Your task to perform on an android device: install app "Instagram" Image 0: 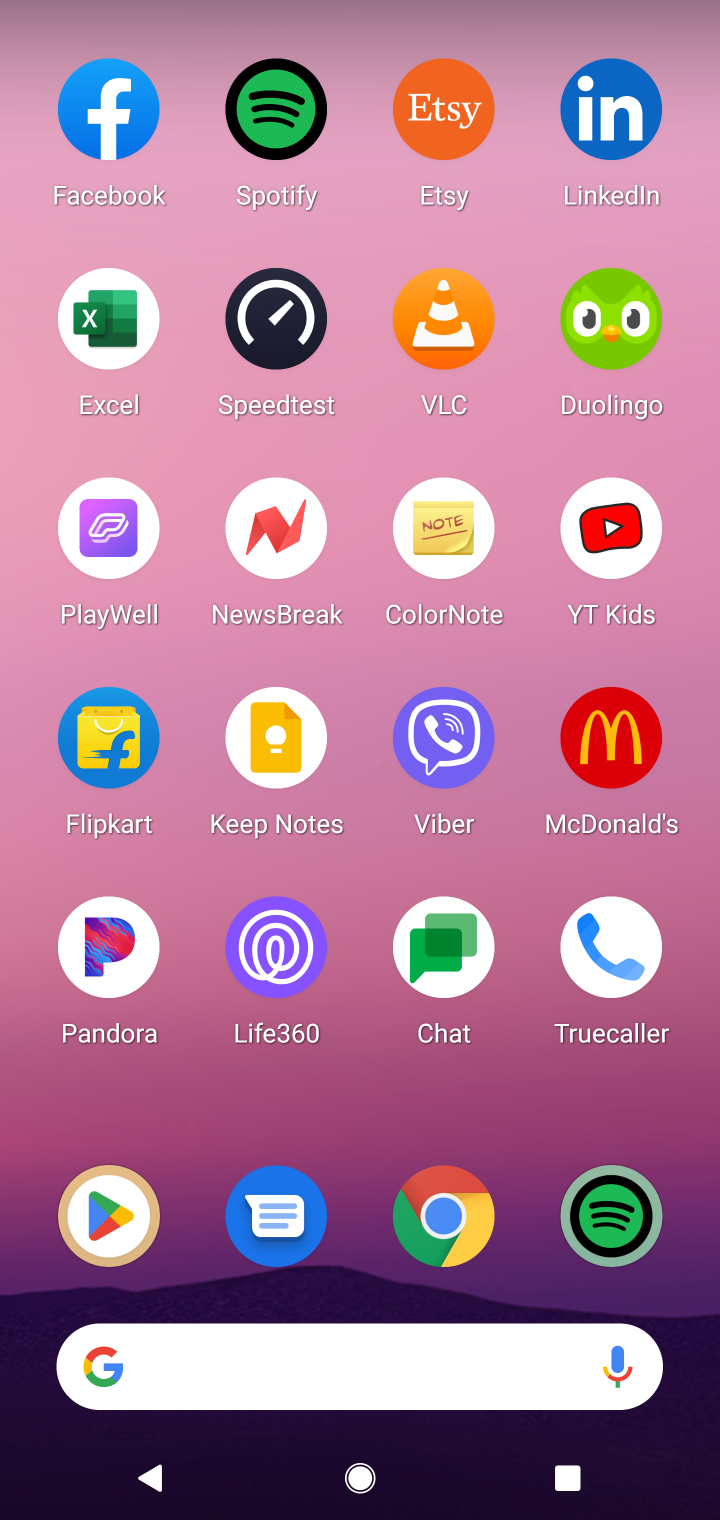
Step 0: click (137, 1211)
Your task to perform on an android device: install app "Instagram" Image 1: 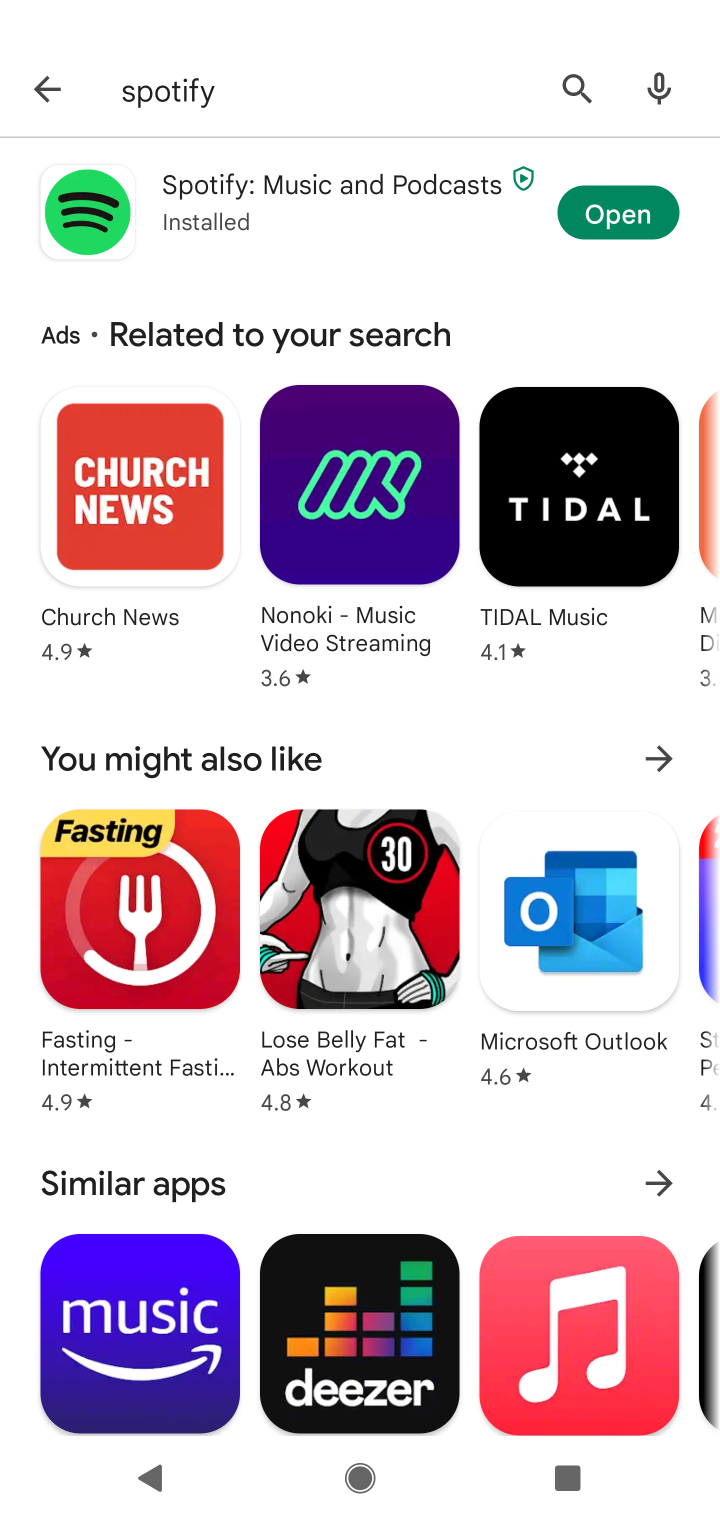
Step 1: click (600, 88)
Your task to perform on an android device: install app "Instagram" Image 2: 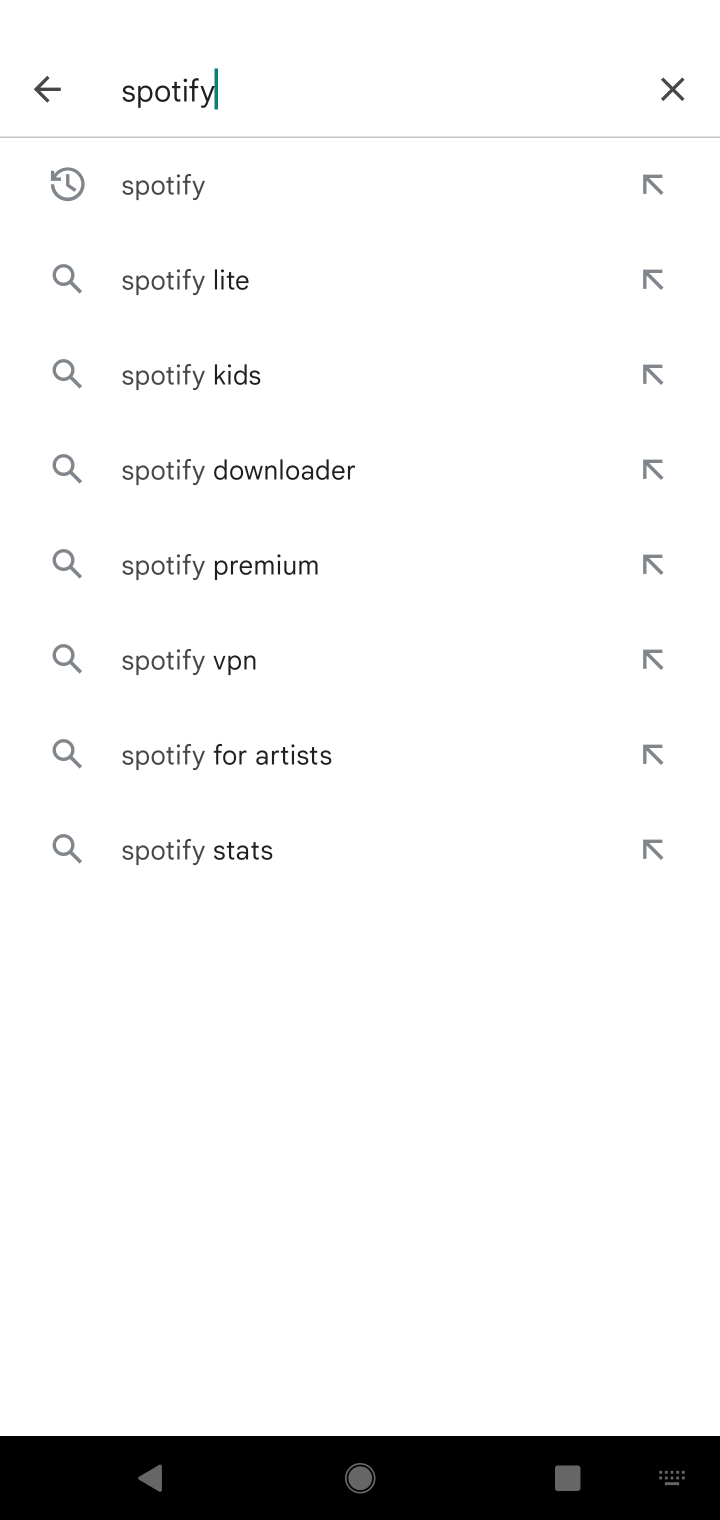
Step 2: click (660, 89)
Your task to perform on an android device: install app "Instagram" Image 3: 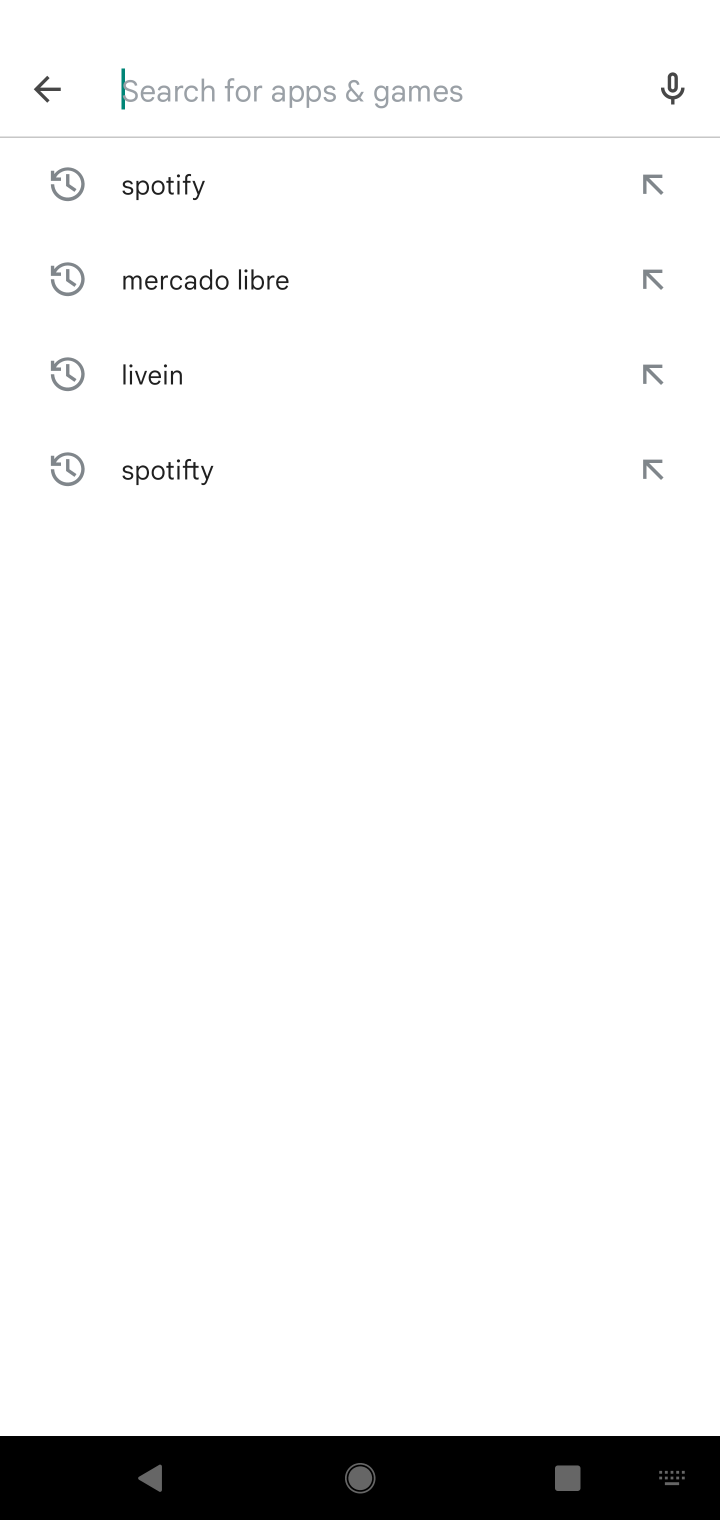
Step 3: type "instagram"
Your task to perform on an android device: install app "Instagram" Image 4: 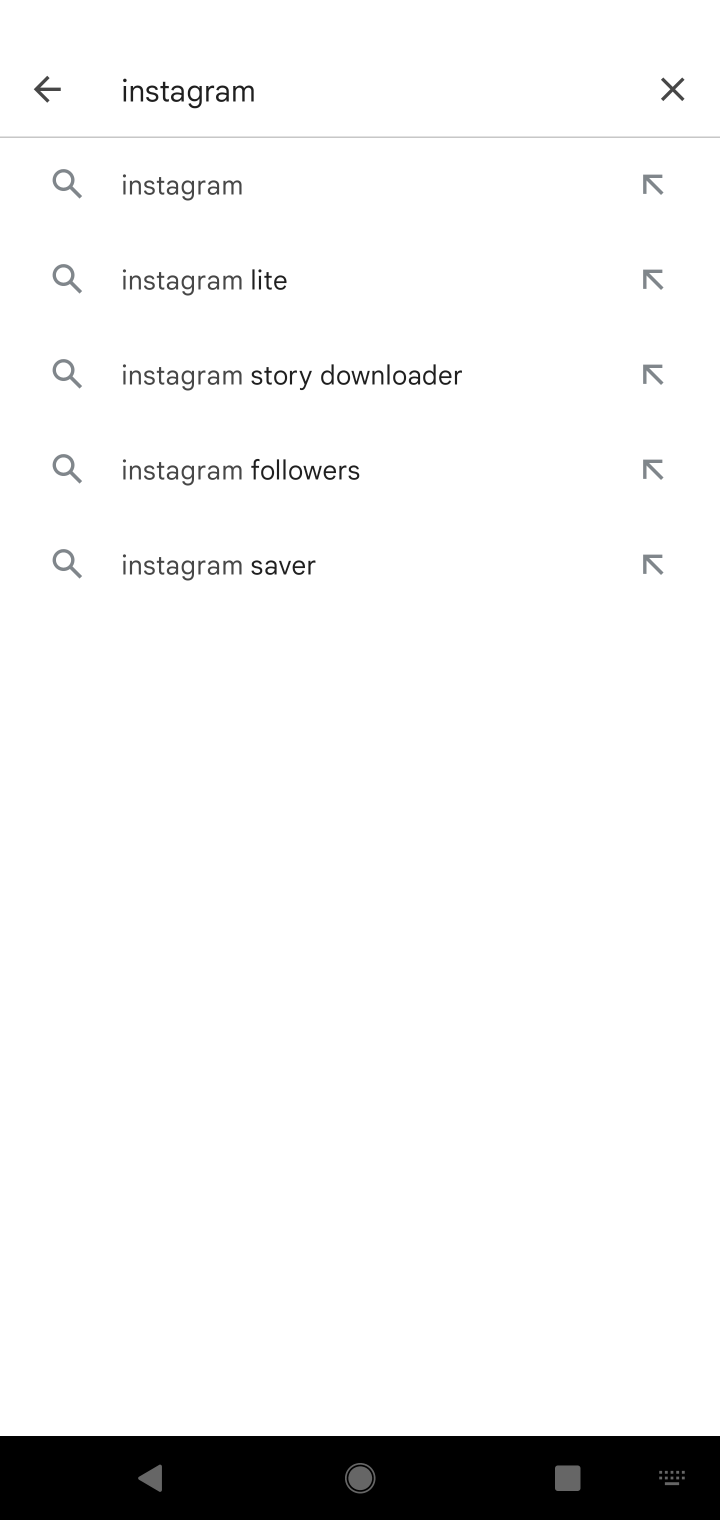
Step 4: click (357, 194)
Your task to perform on an android device: install app "Instagram" Image 5: 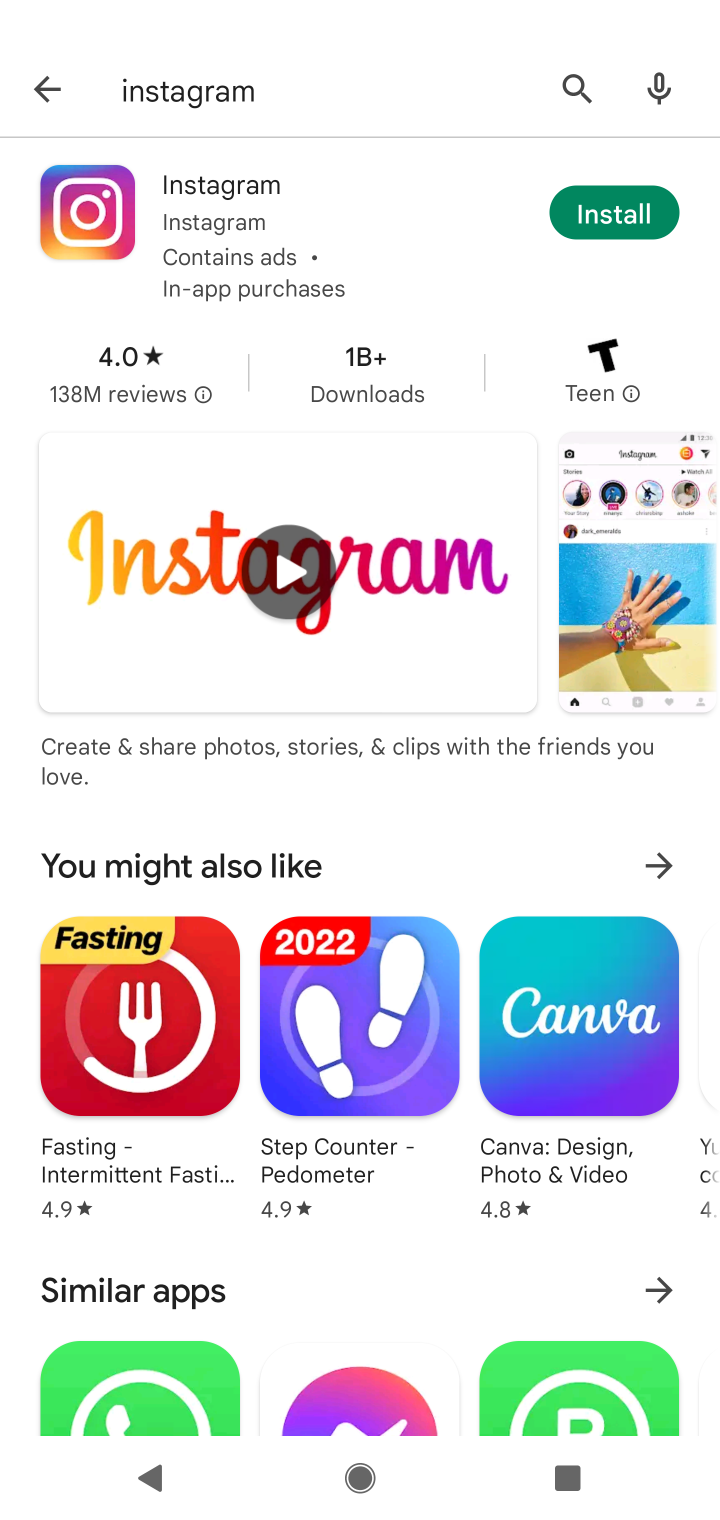
Step 5: click (607, 204)
Your task to perform on an android device: install app "Instagram" Image 6: 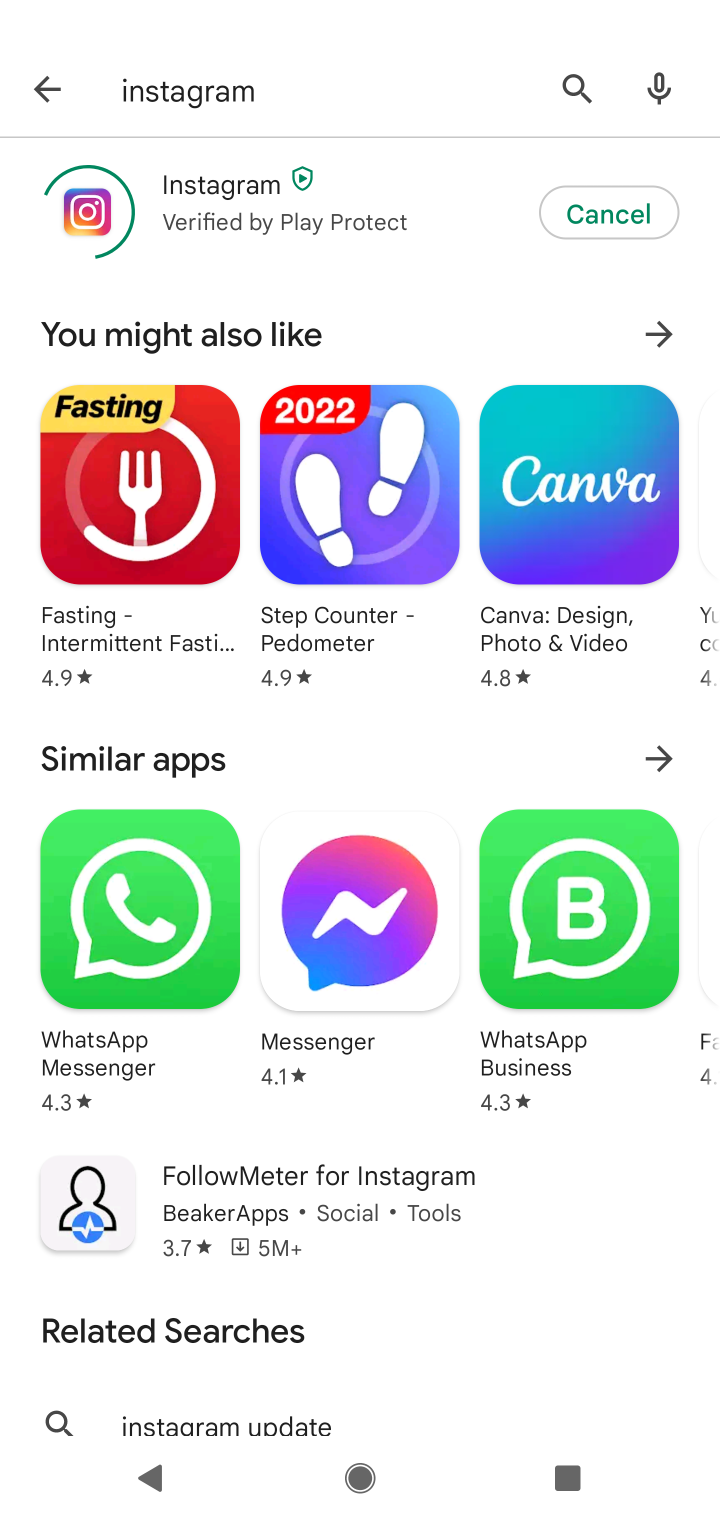
Step 6: task complete